Your task to perform on an android device: turn pop-ups off in chrome Image 0: 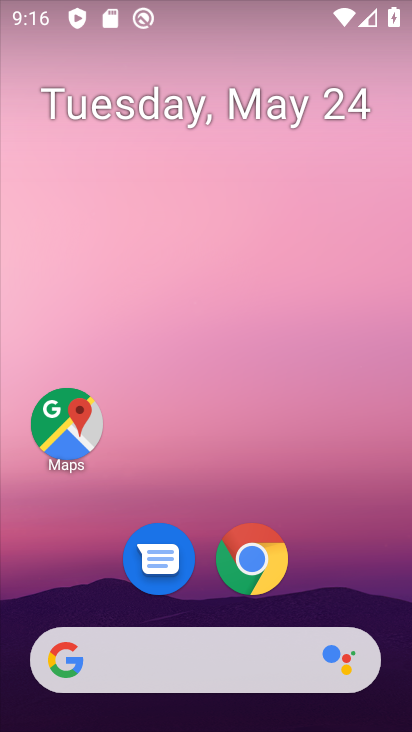
Step 0: click (245, 577)
Your task to perform on an android device: turn pop-ups off in chrome Image 1: 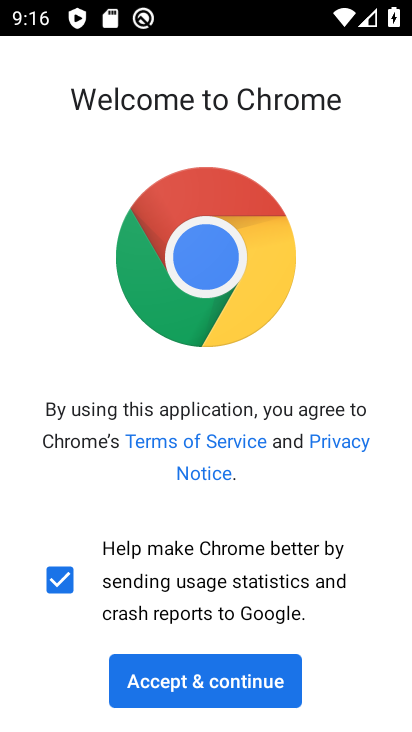
Step 1: click (239, 675)
Your task to perform on an android device: turn pop-ups off in chrome Image 2: 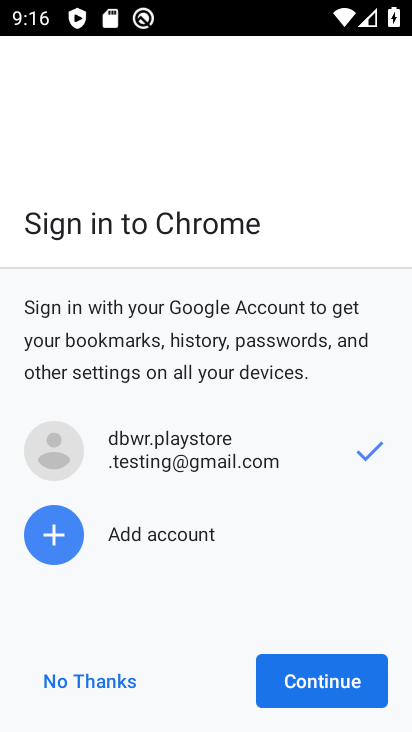
Step 2: click (333, 665)
Your task to perform on an android device: turn pop-ups off in chrome Image 3: 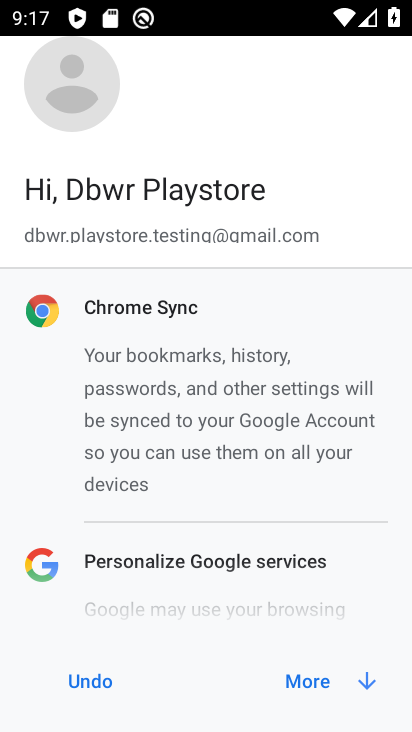
Step 3: click (357, 698)
Your task to perform on an android device: turn pop-ups off in chrome Image 4: 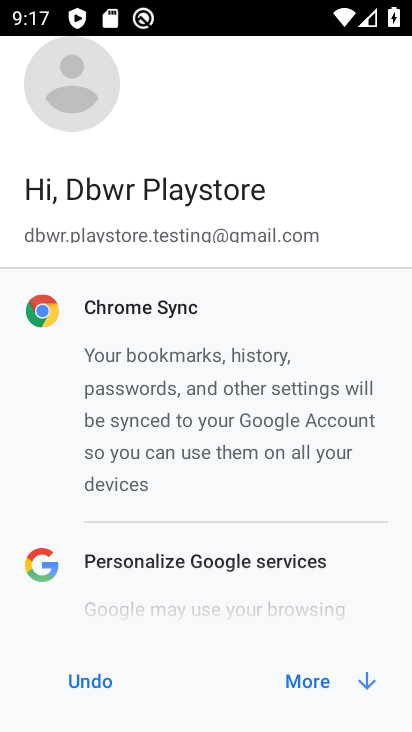
Step 4: click (357, 698)
Your task to perform on an android device: turn pop-ups off in chrome Image 5: 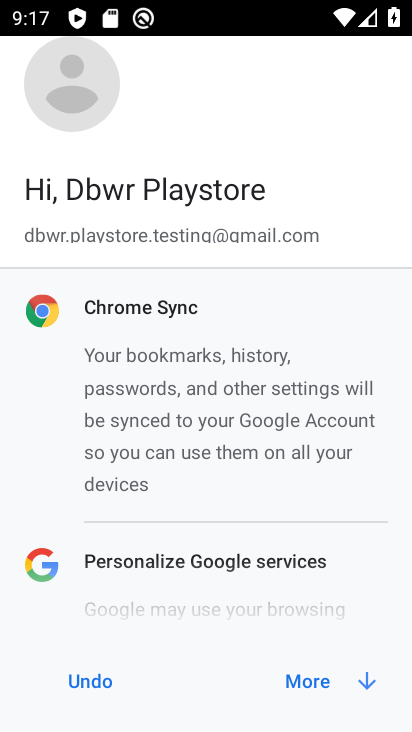
Step 5: click (357, 698)
Your task to perform on an android device: turn pop-ups off in chrome Image 6: 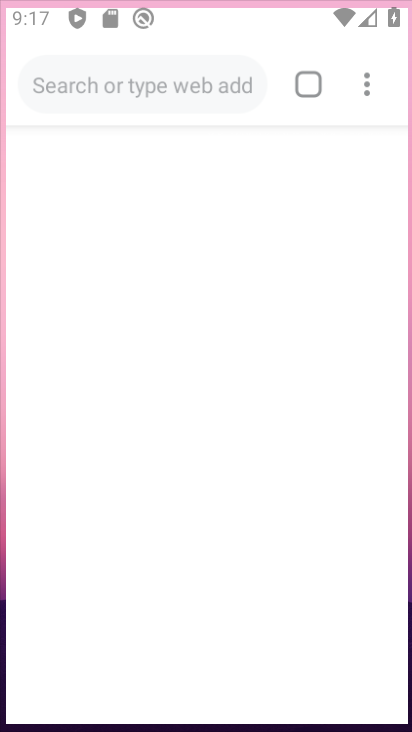
Step 6: click (357, 698)
Your task to perform on an android device: turn pop-ups off in chrome Image 7: 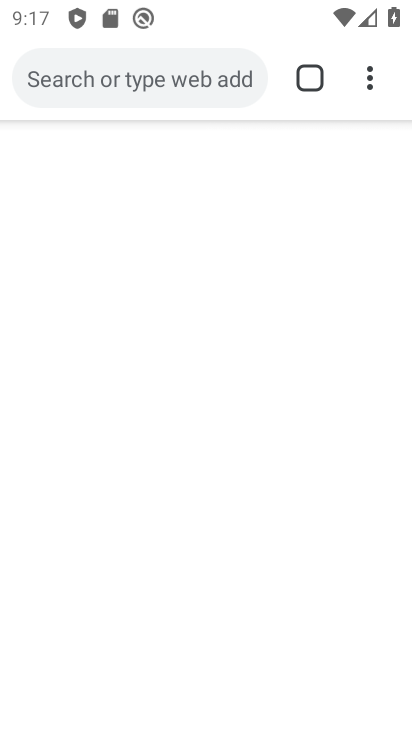
Step 7: click (357, 698)
Your task to perform on an android device: turn pop-ups off in chrome Image 8: 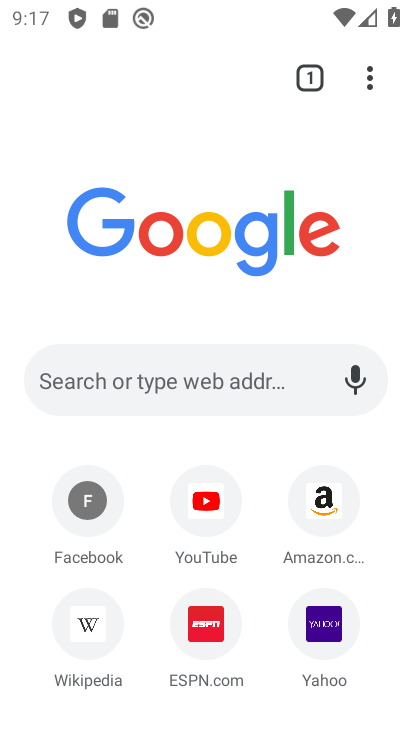
Step 8: click (374, 75)
Your task to perform on an android device: turn pop-ups off in chrome Image 9: 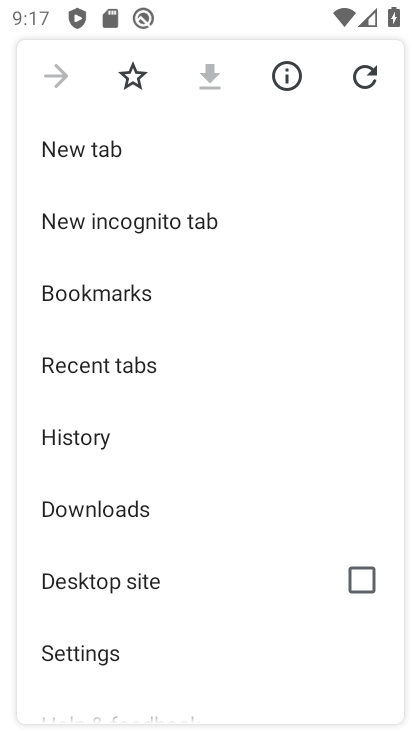
Step 9: drag from (191, 589) to (191, 337)
Your task to perform on an android device: turn pop-ups off in chrome Image 10: 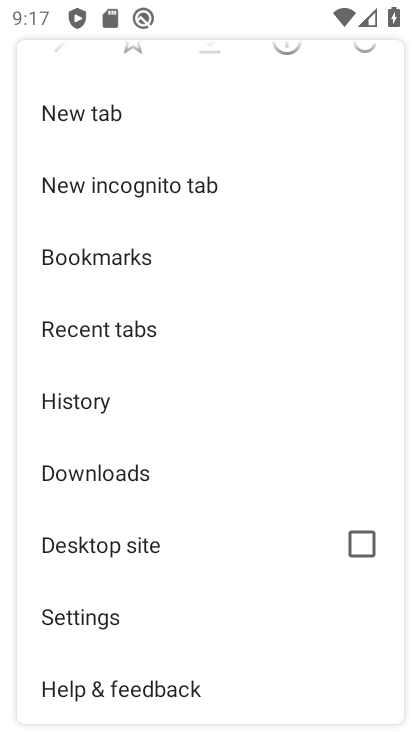
Step 10: click (140, 629)
Your task to perform on an android device: turn pop-ups off in chrome Image 11: 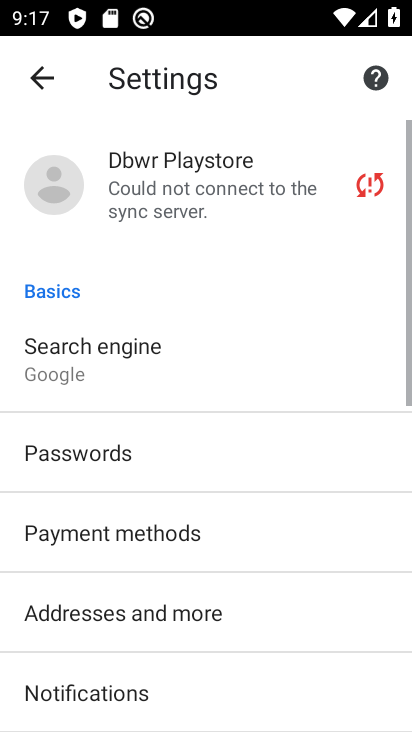
Step 11: drag from (243, 618) to (224, 269)
Your task to perform on an android device: turn pop-ups off in chrome Image 12: 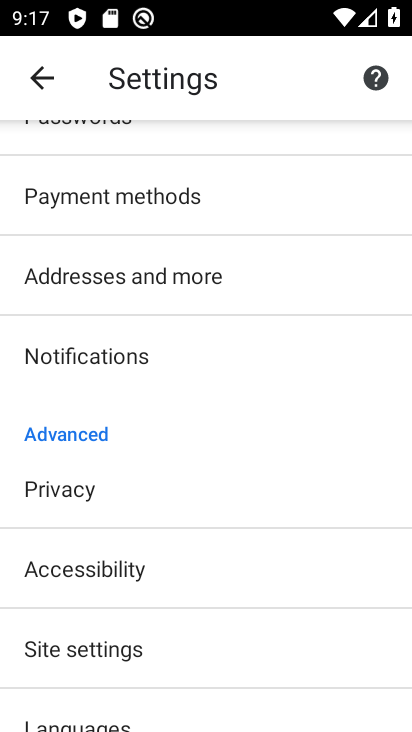
Step 12: drag from (230, 493) to (221, 314)
Your task to perform on an android device: turn pop-ups off in chrome Image 13: 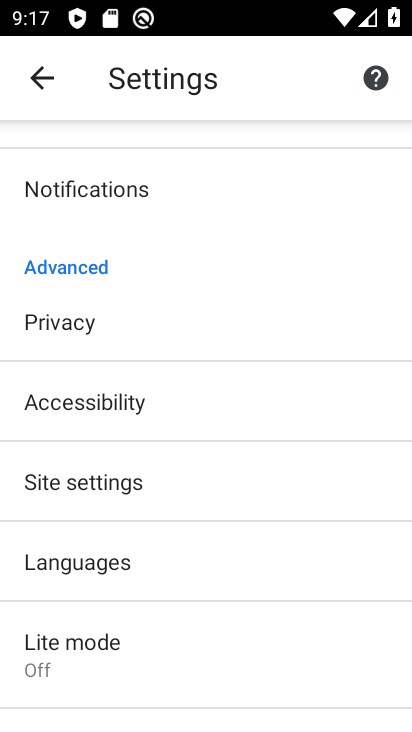
Step 13: click (157, 482)
Your task to perform on an android device: turn pop-ups off in chrome Image 14: 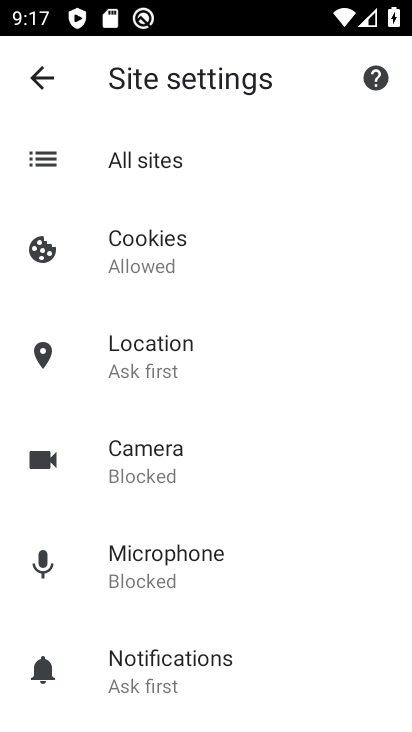
Step 14: drag from (315, 608) to (356, 331)
Your task to perform on an android device: turn pop-ups off in chrome Image 15: 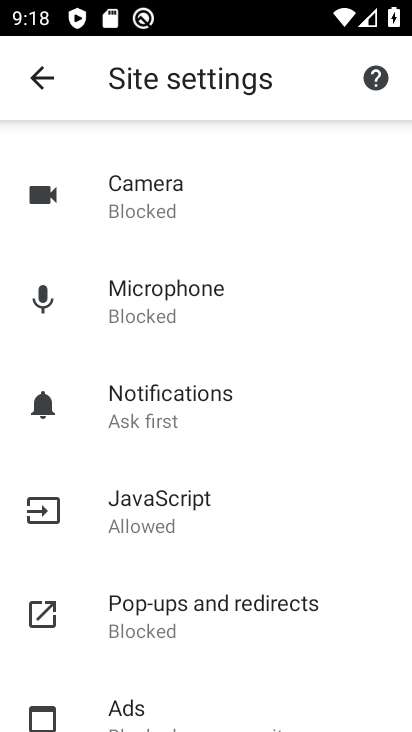
Step 15: click (241, 585)
Your task to perform on an android device: turn pop-ups off in chrome Image 16: 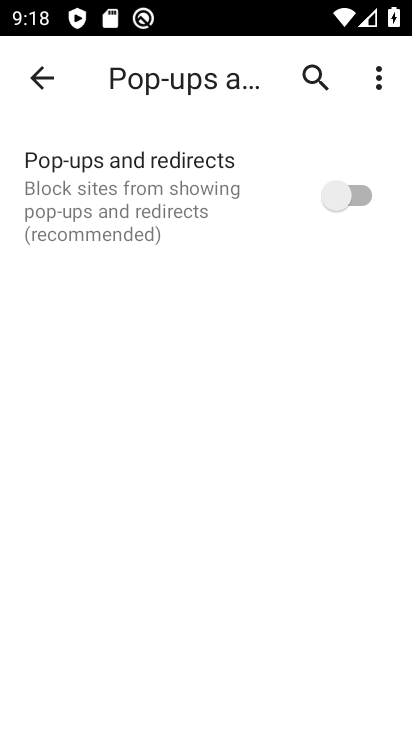
Step 16: click (349, 208)
Your task to perform on an android device: turn pop-ups off in chrome Image 17: 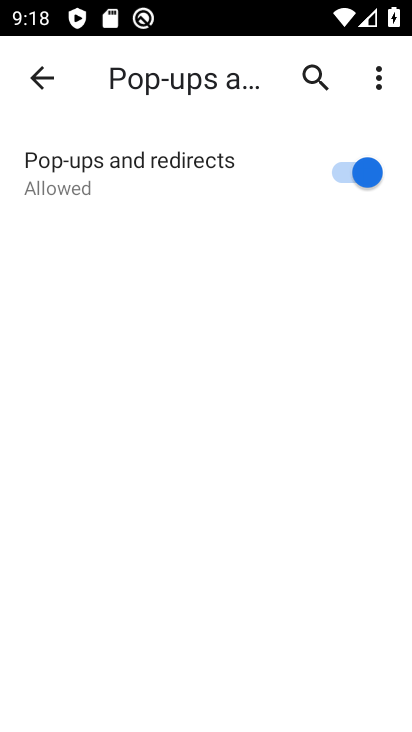
Step 17: task complete